Your task to perform on an android device: open app "The Home Depot" (install if not already installed) and enter user name: "taproot@icloud.com" and password: "executions" Image 0: 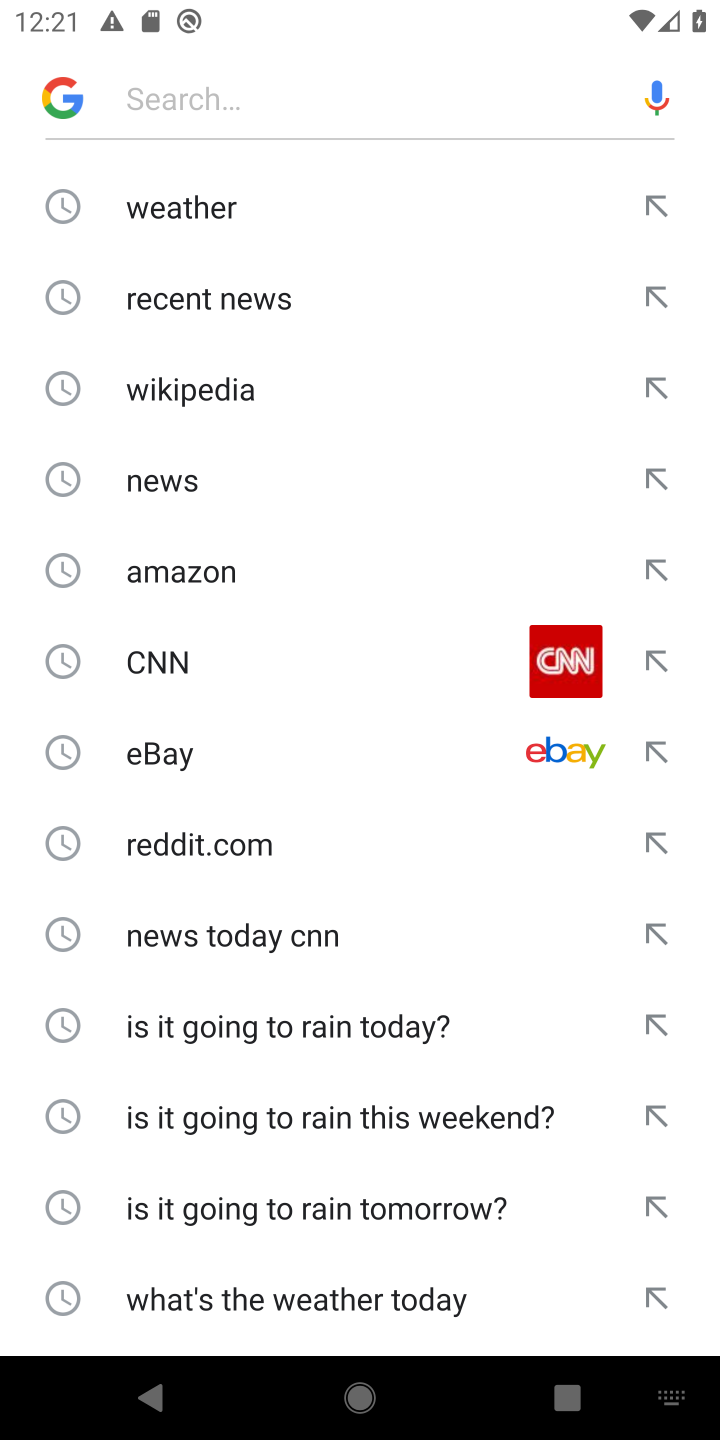
Step 0: press home button
Your task to perform on an android device: open app "The Home Depot" (install if not already installed) and enter user name: "taproot@icloud.com" and password: "executions" Image 1: 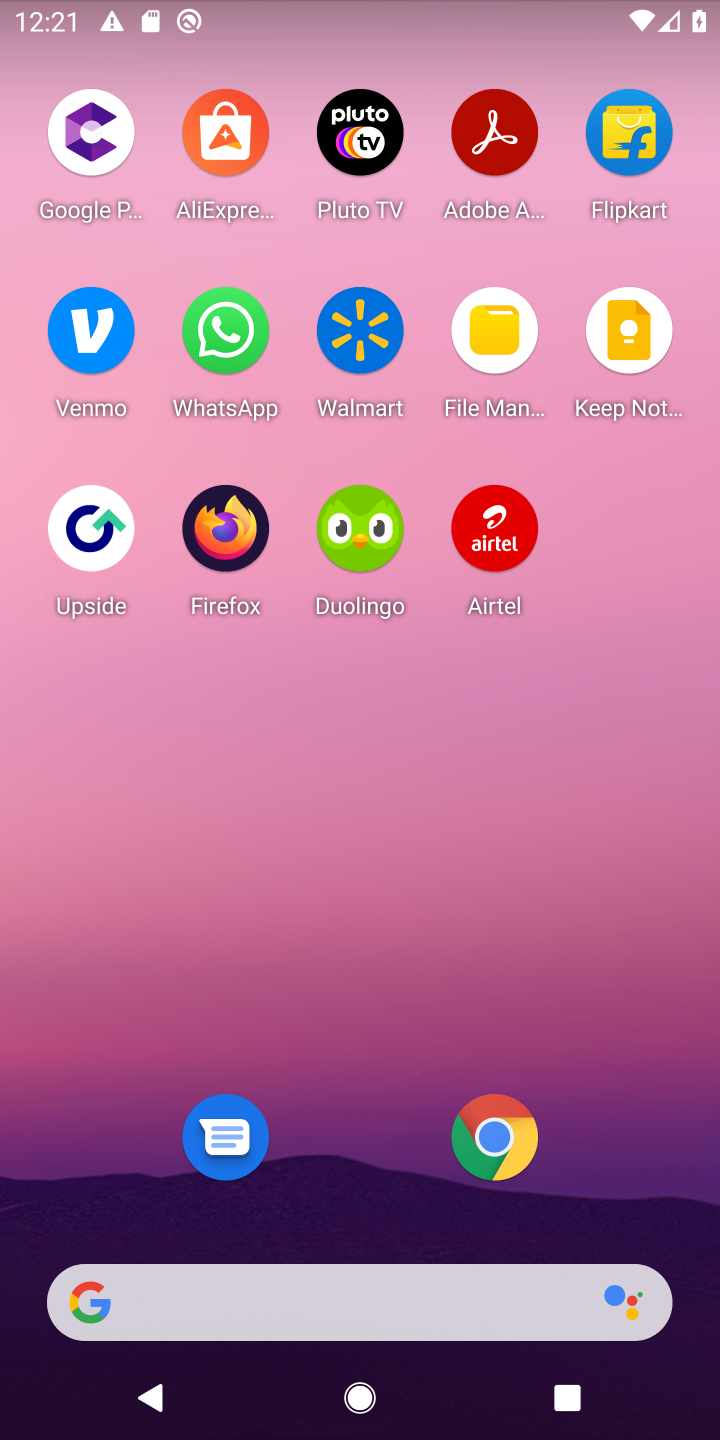
Step 1: drag from (339, 1082) to (301, 35)
Your task to perform on an android device: open app "The Home Depot" (install if not already installed) and enter user name: "taproot@icloud.com" and password: "executions" Image 2: 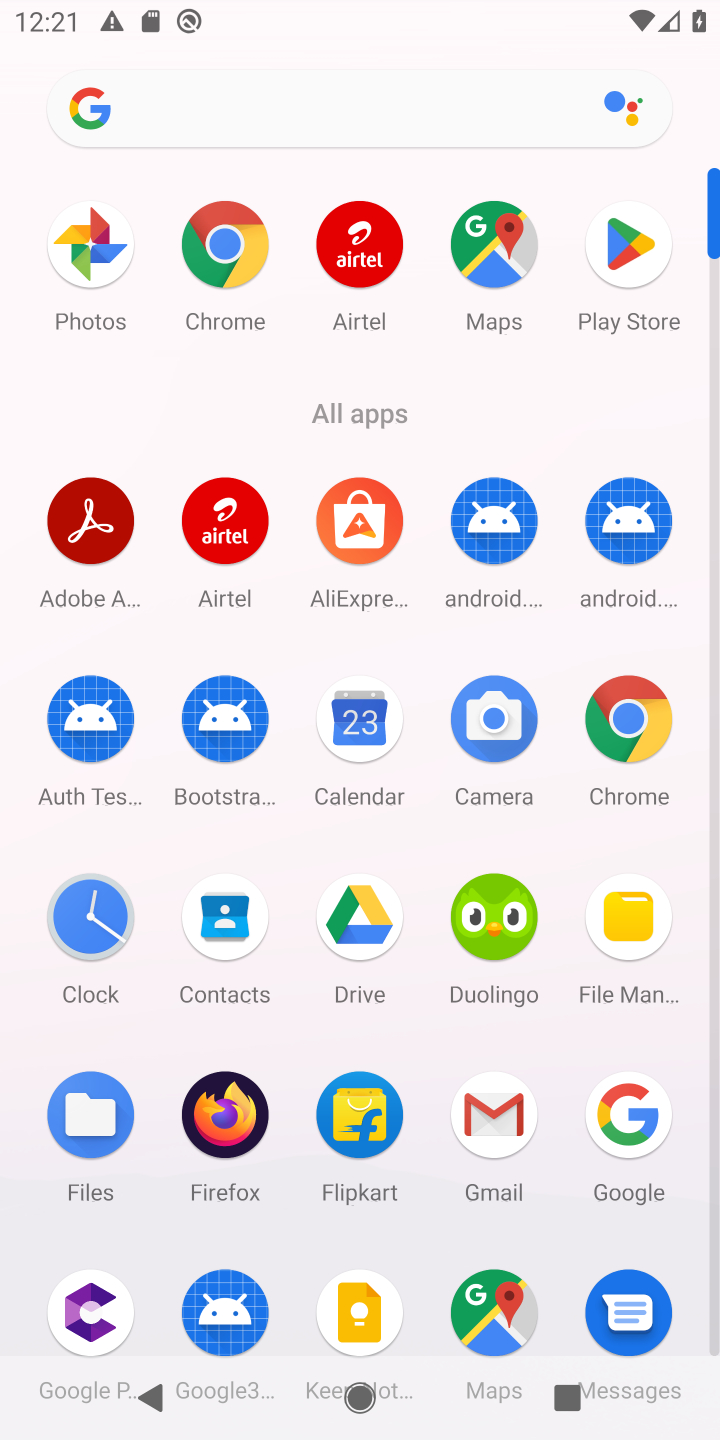
Step 2: click (618, 273)
Your task to perform on an android device: open app "The Home Depot" (install if not already installed) and enter user name: "taproot@icloud.com" and password: "executions" Image 3: 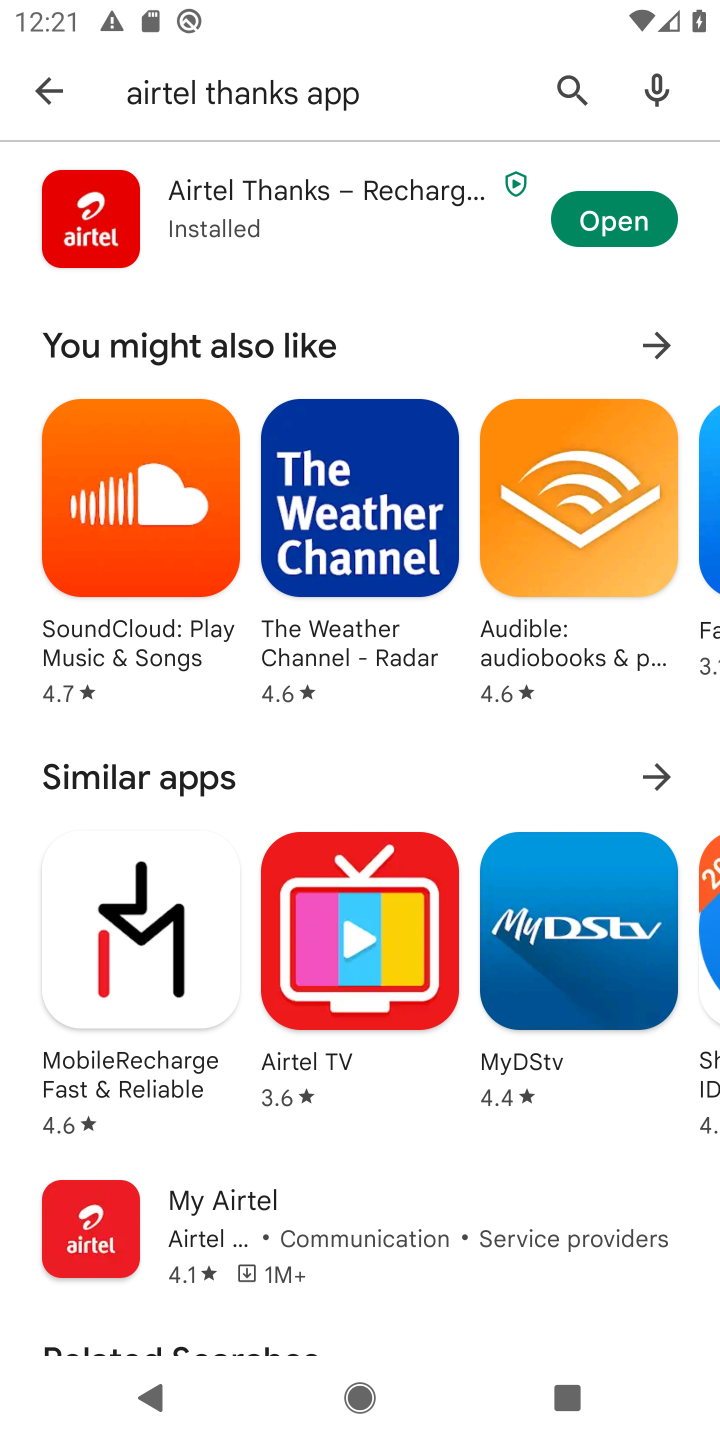
Step 3: click (46, 76)
Your task to perform on an android device: open app "The Home Depot" (install if not already installed) and enter user name: "taproot@icloud.com" and password: "executions" Image 4: 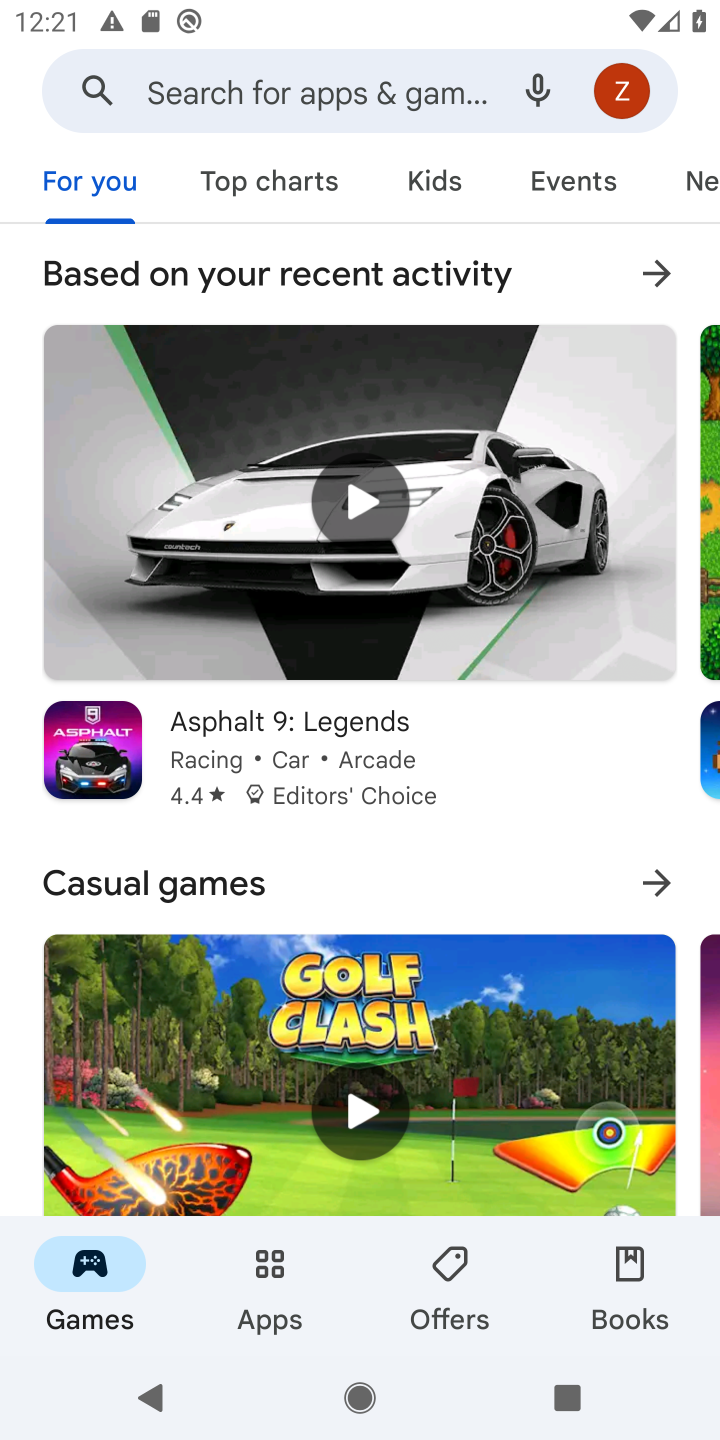
Step 4: click (220, 103)
Your task to perform on an android device: open app "The Home Depot" (install if not already installed) and enter user name: "taproot@icloud.com" and password: "executions" Image 5: 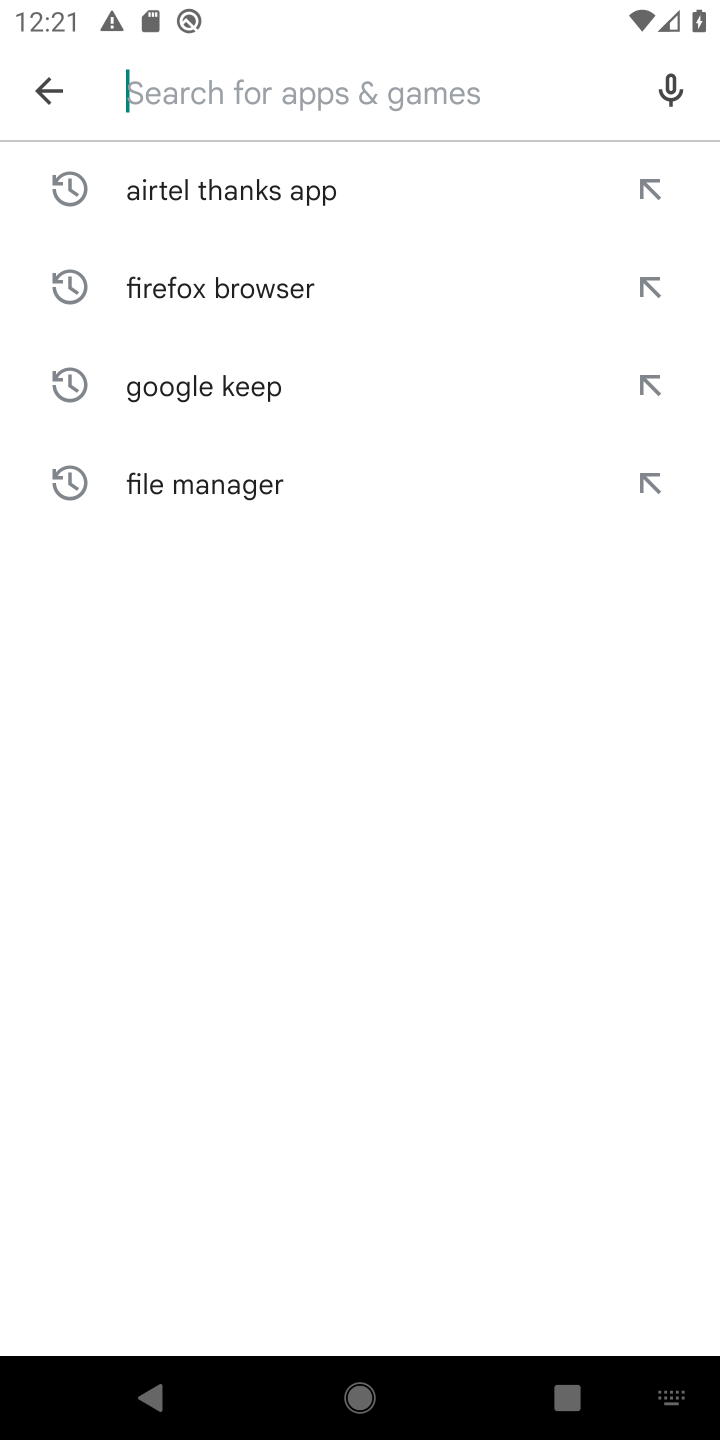
Step 5: type "The Home Depot"
Your task to perform on an android device: open app "The Home Depot" (install if not already installed) and enter user name: "taproot@icloud.com" and password: "executions" Image 6: 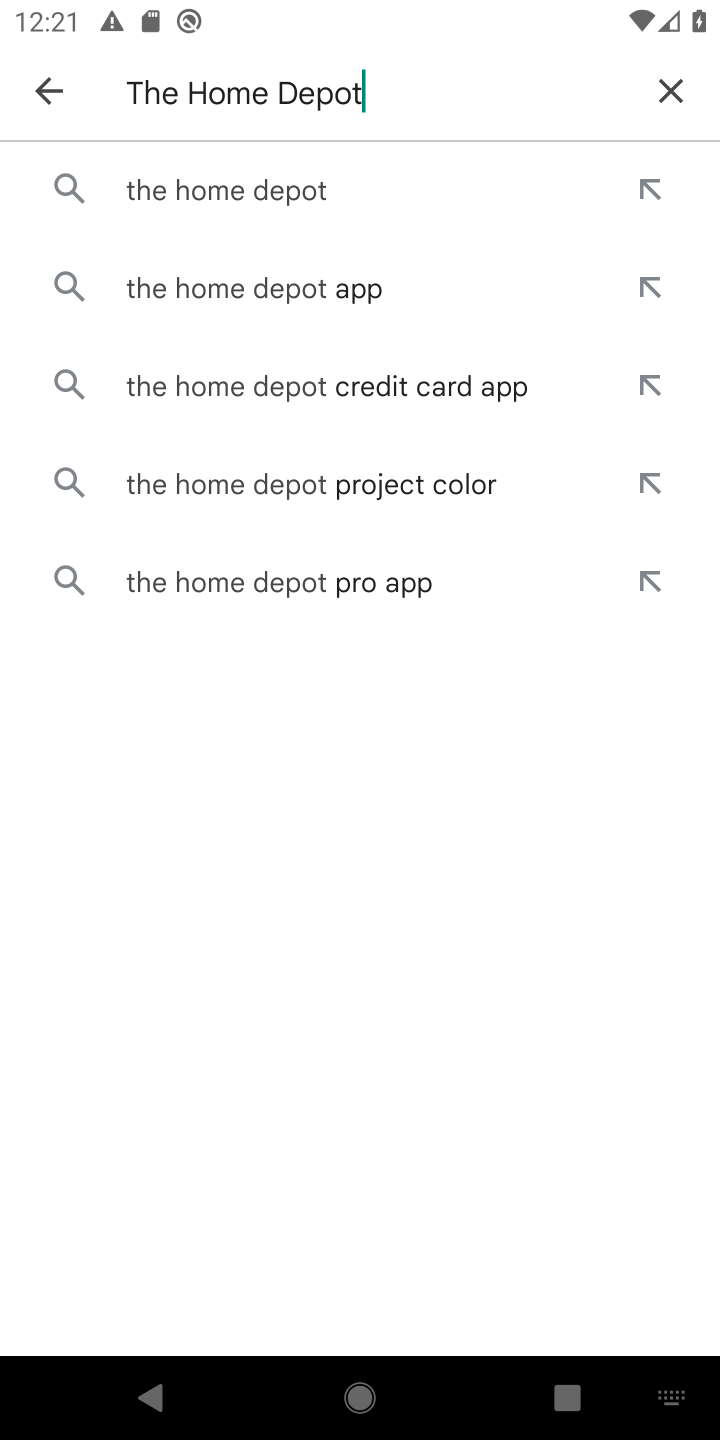
Step 6: click (193, 184)
Your task to perform on an android device: open app "The Home Depot" (install if not already installed) and enter user name: "taproot@icloud.com" and password: "executions" Image 7: 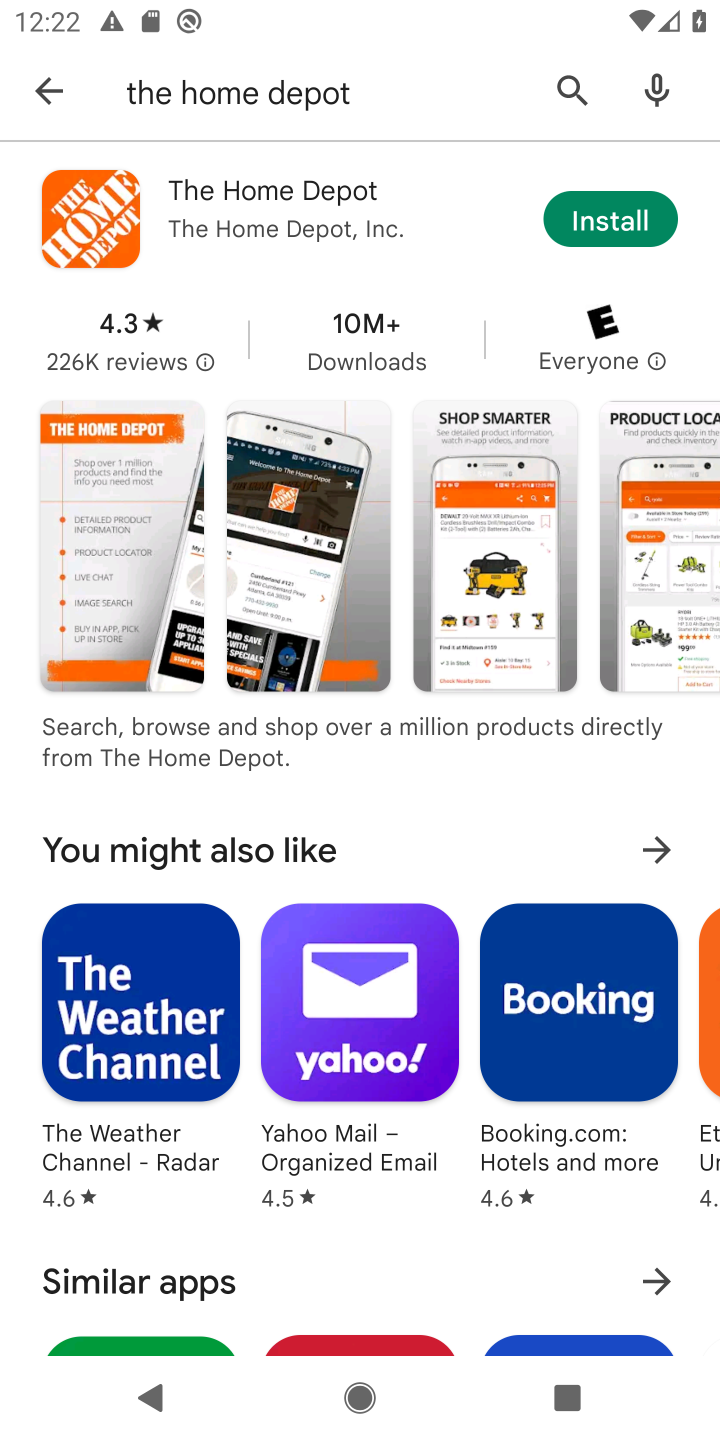
Step 7: click (610, 212)
Your task to perform on an android device: open app "The Home Depot" (install if not already installed) and enter user name: "taproot@icloud.com" and password: "executions" Image 8: 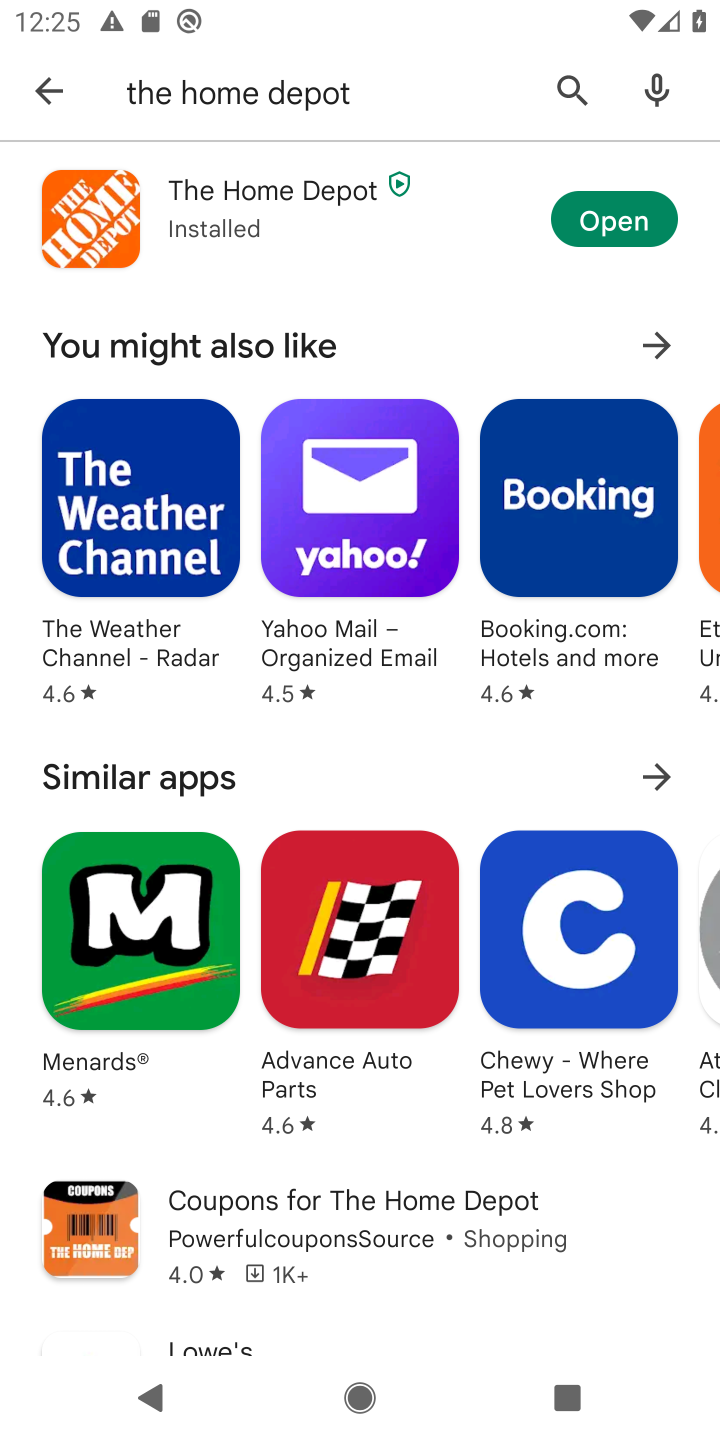
Step 8: click (593, 220)
Your task to perform on an android device: open app "The Home Depot" (install if not already installed) and enter user name: "taproot@icloud.com" and password: "executions" Image 9: 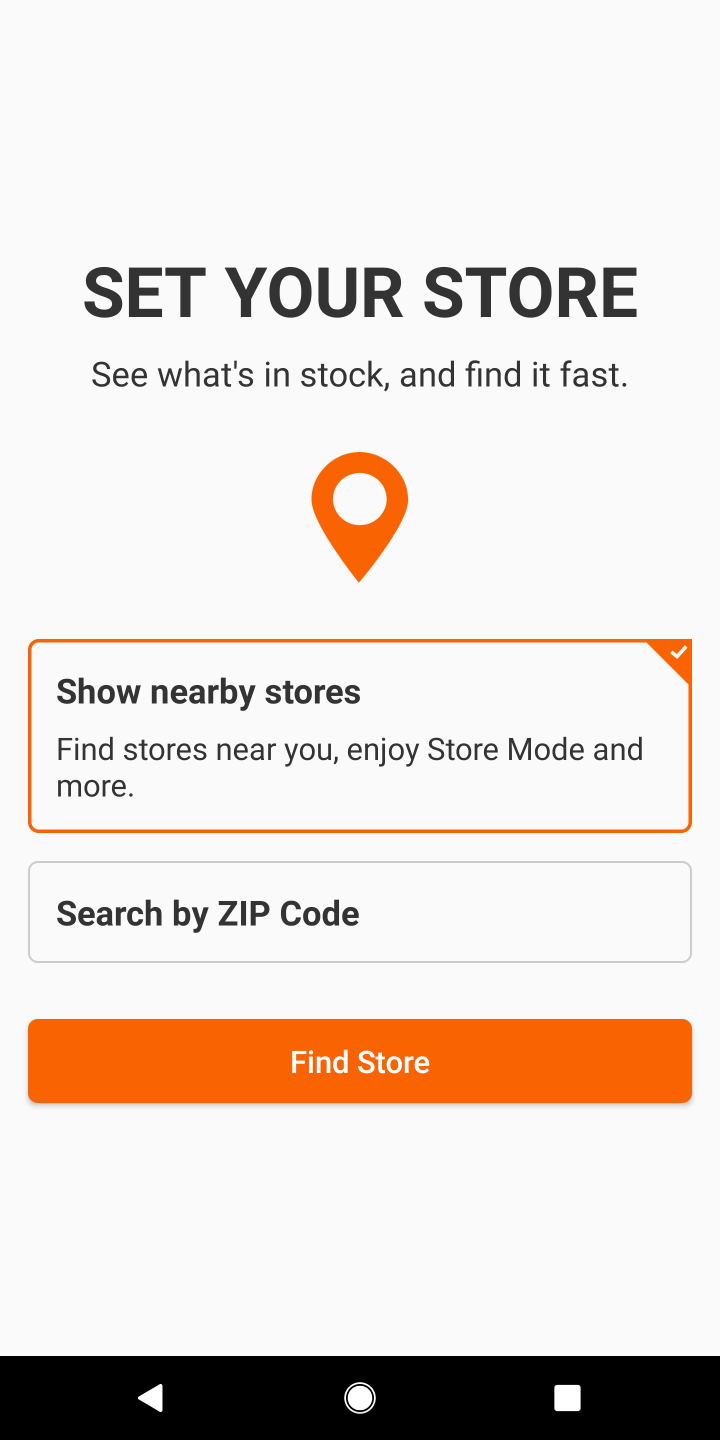
Step 9: task complete